Your task to perform on an android device: Add "energizer triple a" to the cart on walmart.com Image 0: 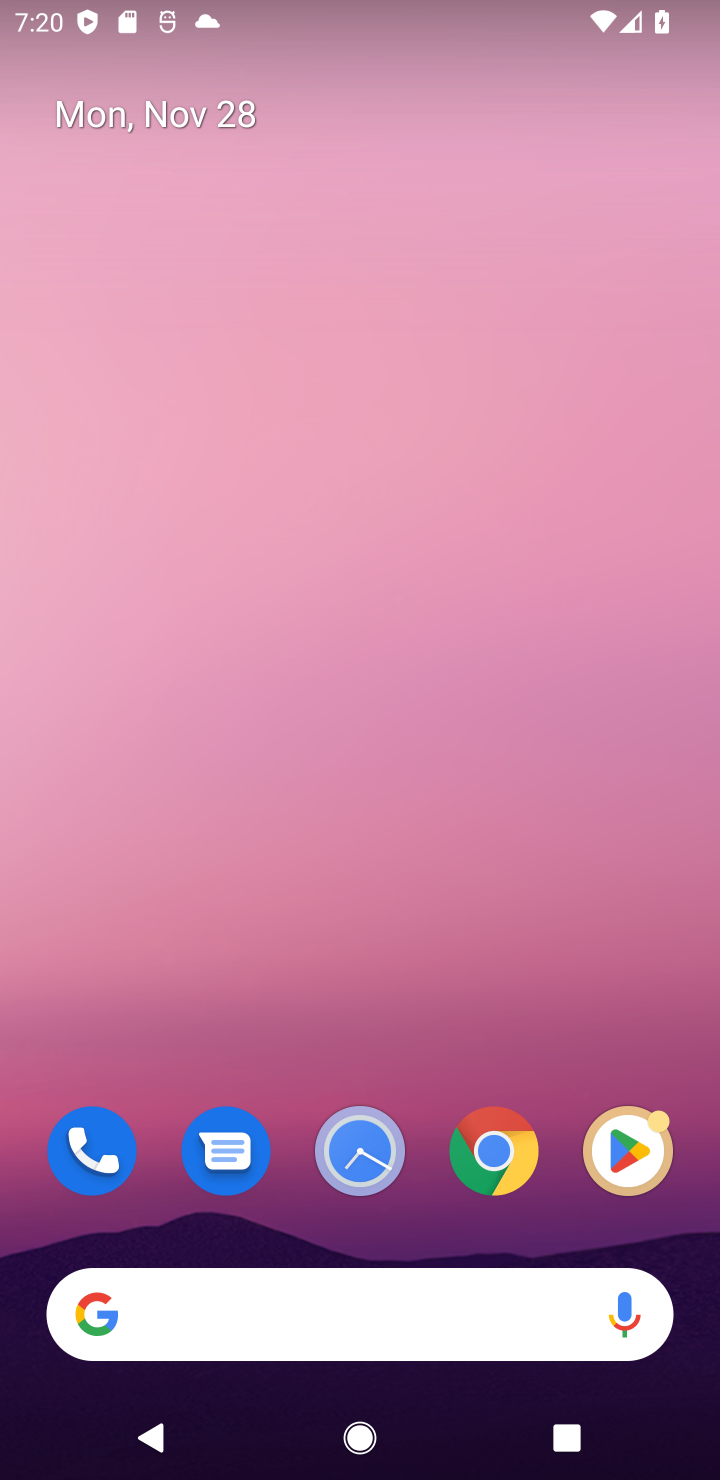
Step 0: click (203, 1346)
Your task to perform on an android device: Add "energizer triple a" to the cart on walmart.com Image 1: 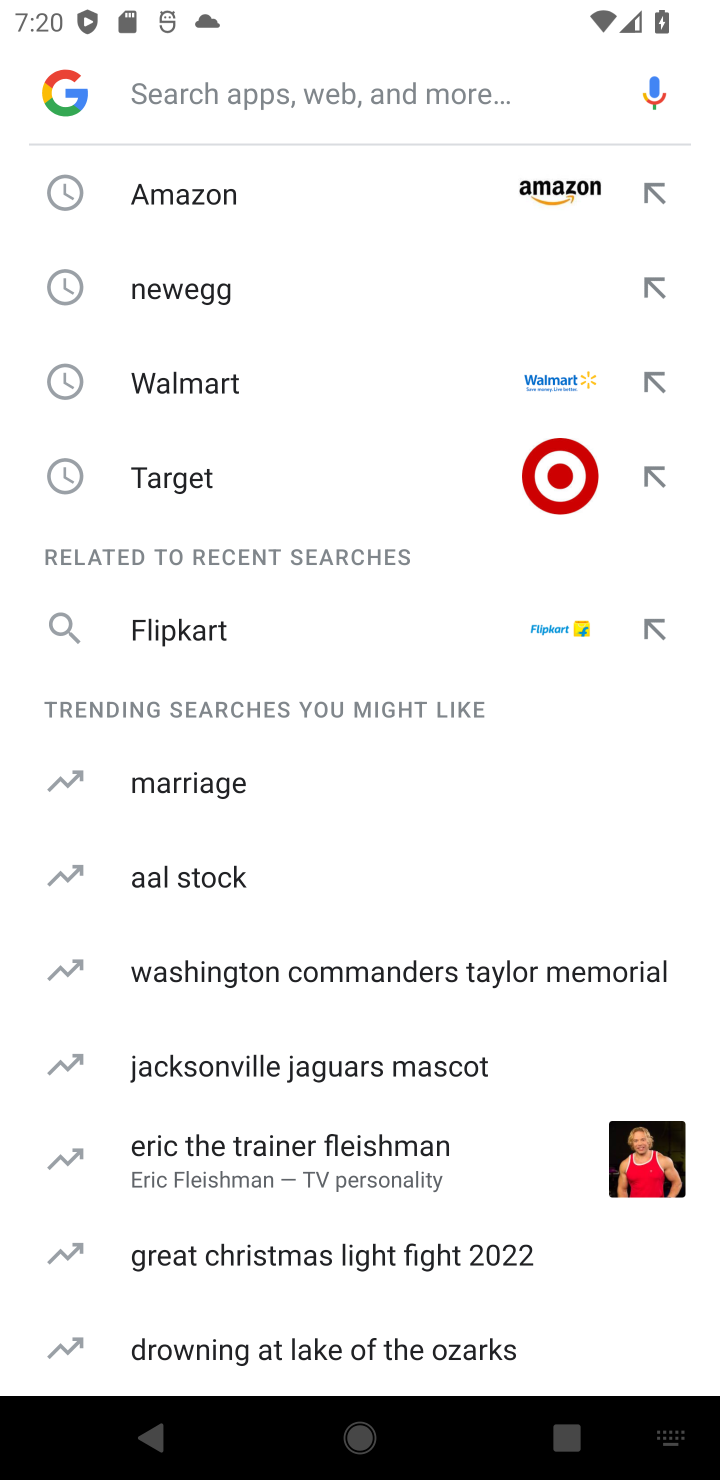
Step 1: type "walmart"
Your task to perform on an android device: Add "energizer triple a" to the cart on walmart.com Image 2: 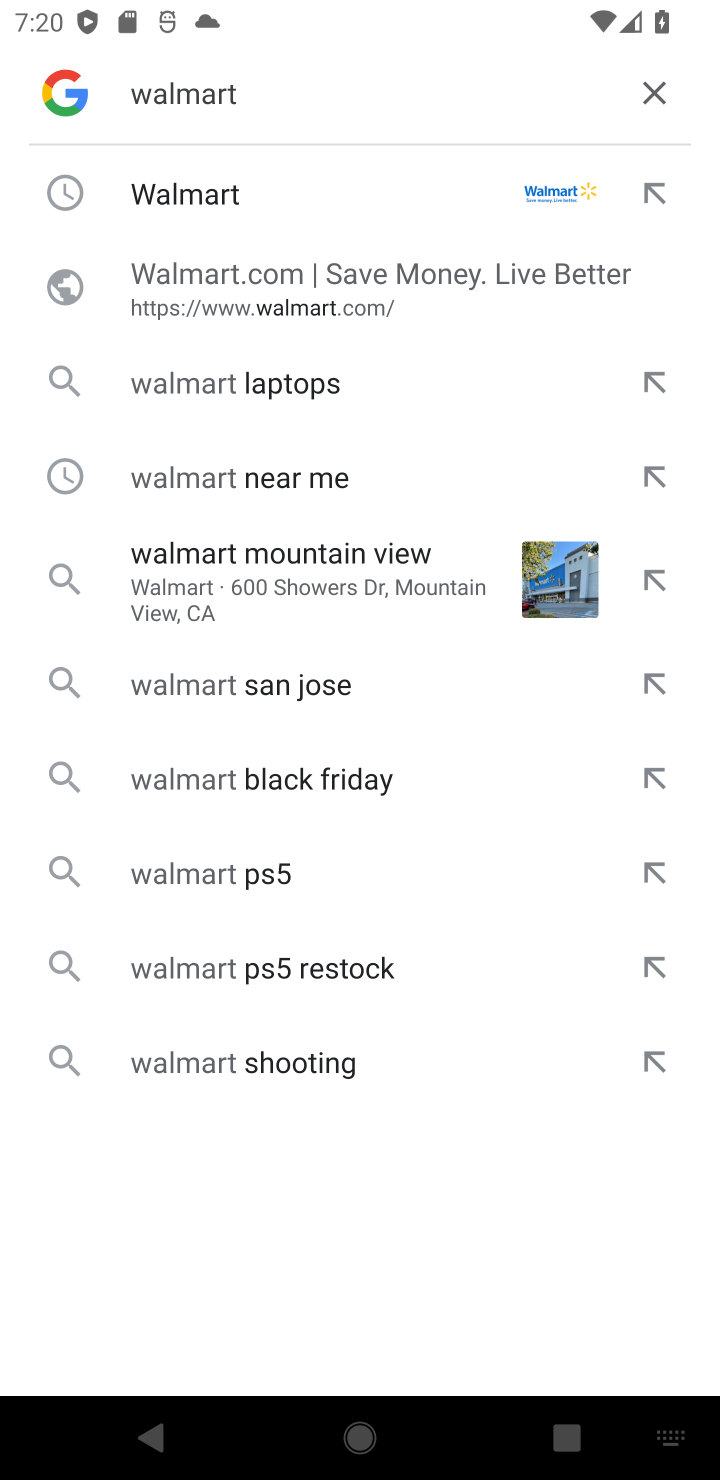
Step 2: click (203, 205)
Your task to perform on an android device: Add "energizer triple a" to the cart on walmart.com Image 3: 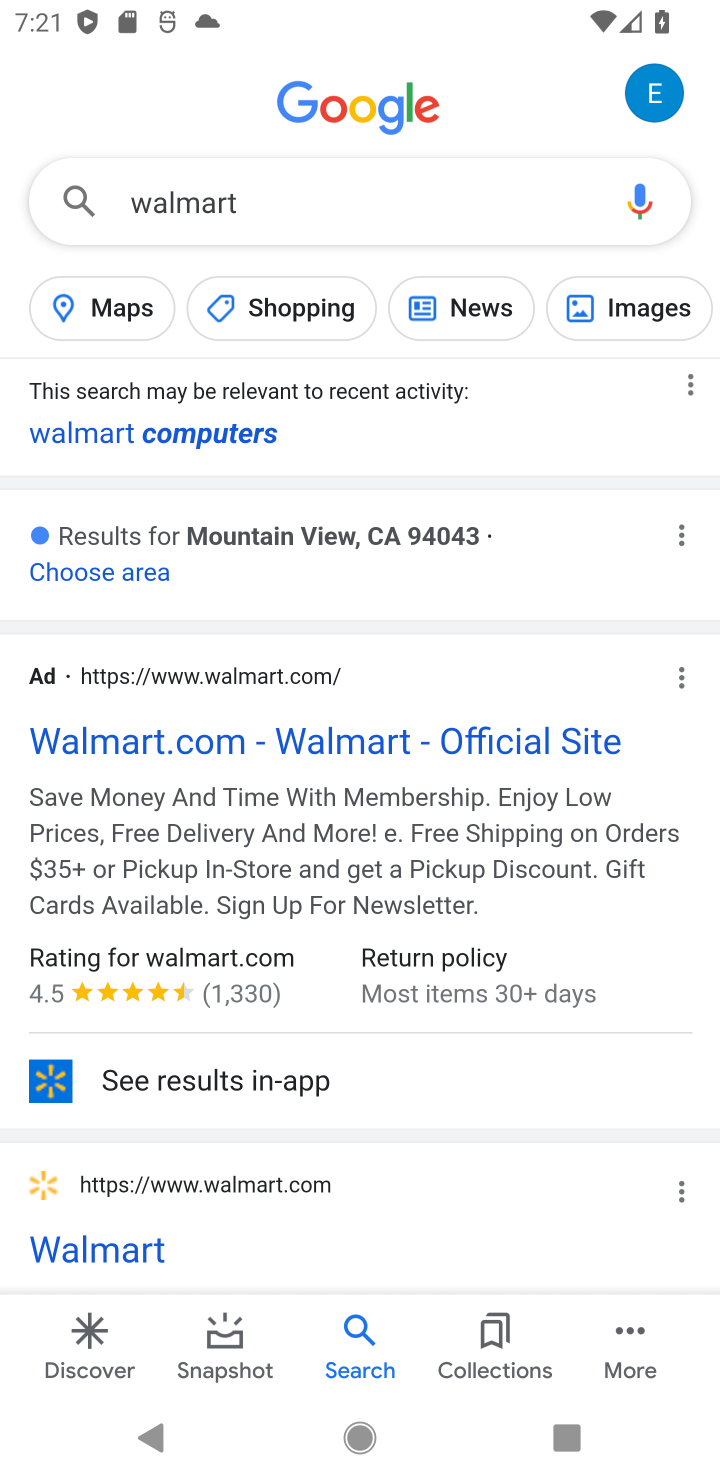
Step 3: click (104, 738)
Your task to perform on an android device: Add "energizer triple a" to the cart on walmart.com Image 4: 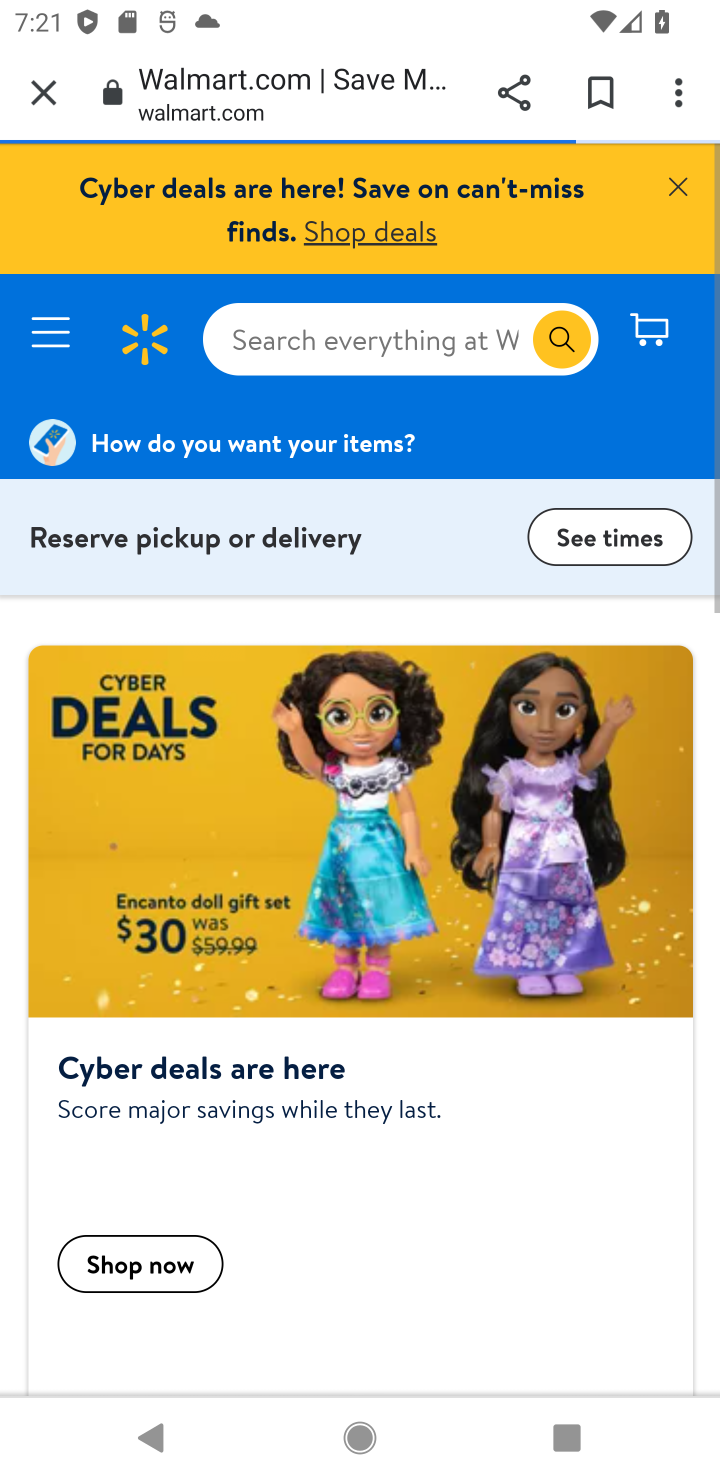
Step 4: click (678, 205)
Your task to perform on an android device: Add "energizer triple a" to the cart on walmart.com Image 5: 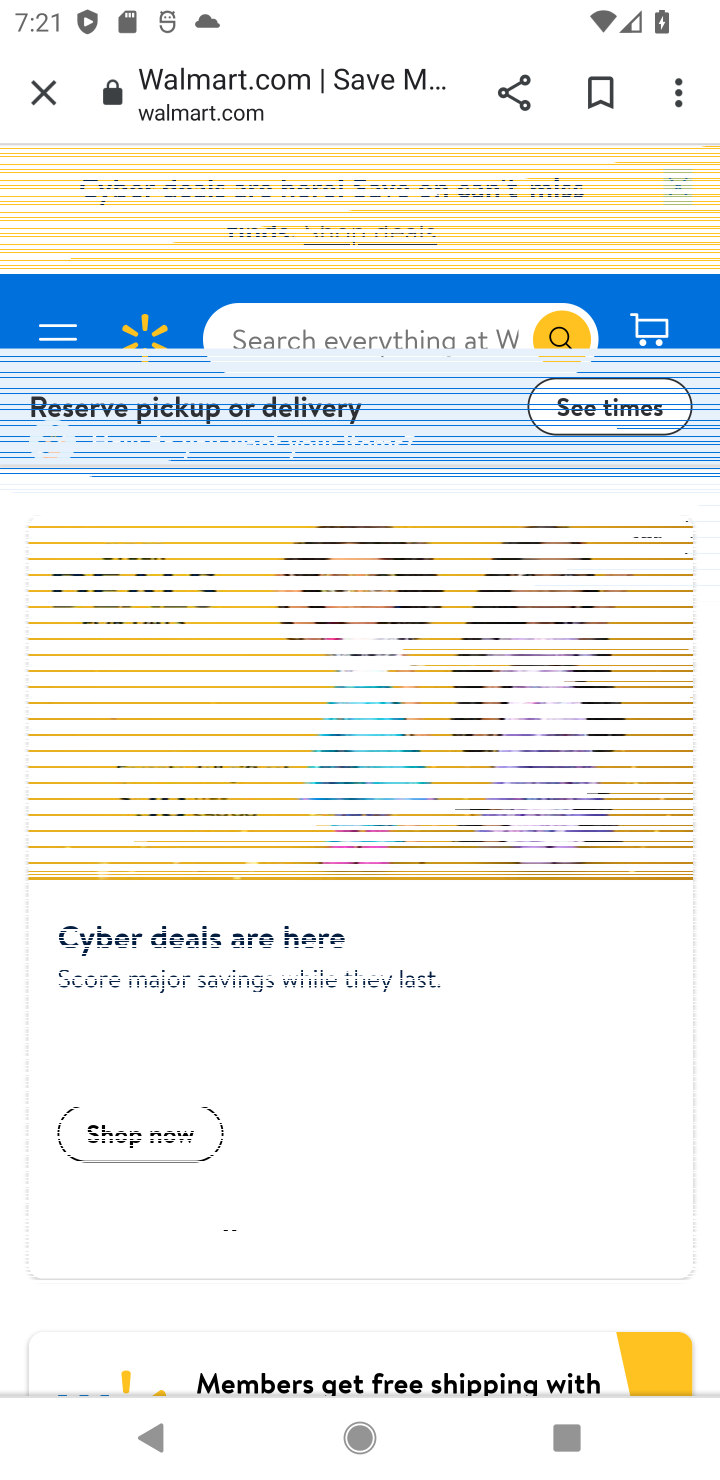
Step 5: click (375, 359)
Your task to perform on an android device: Add "energizer triple a" to the cart on walmart.com Image 6: 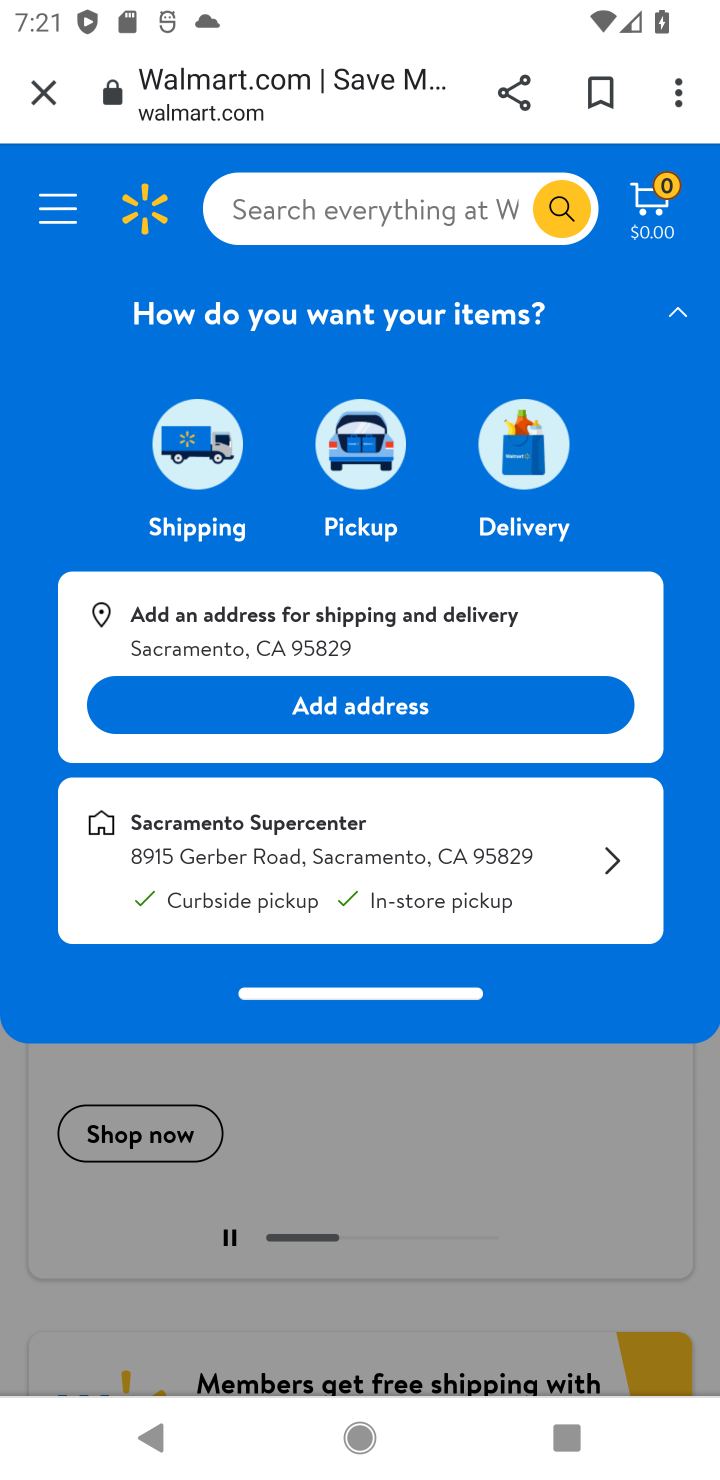
Step 6: click (360, 212)
Your task to perform on an android device: Add "energizer triple a" to the cart on walmart.com Image 7: 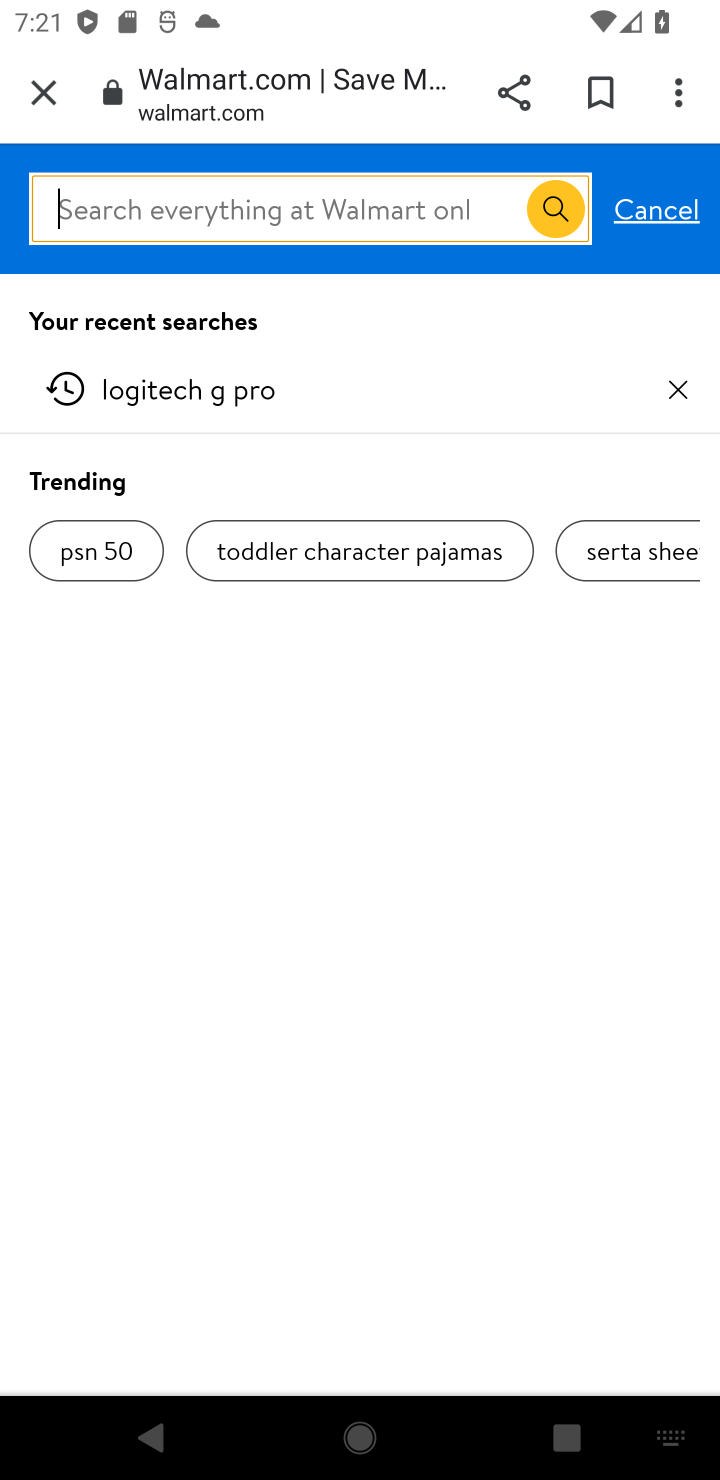
Step 7: type "energizer triple a"
Your task to perform on an android device: Add "energizer triple a" to the cart on walmart.com Image 8: 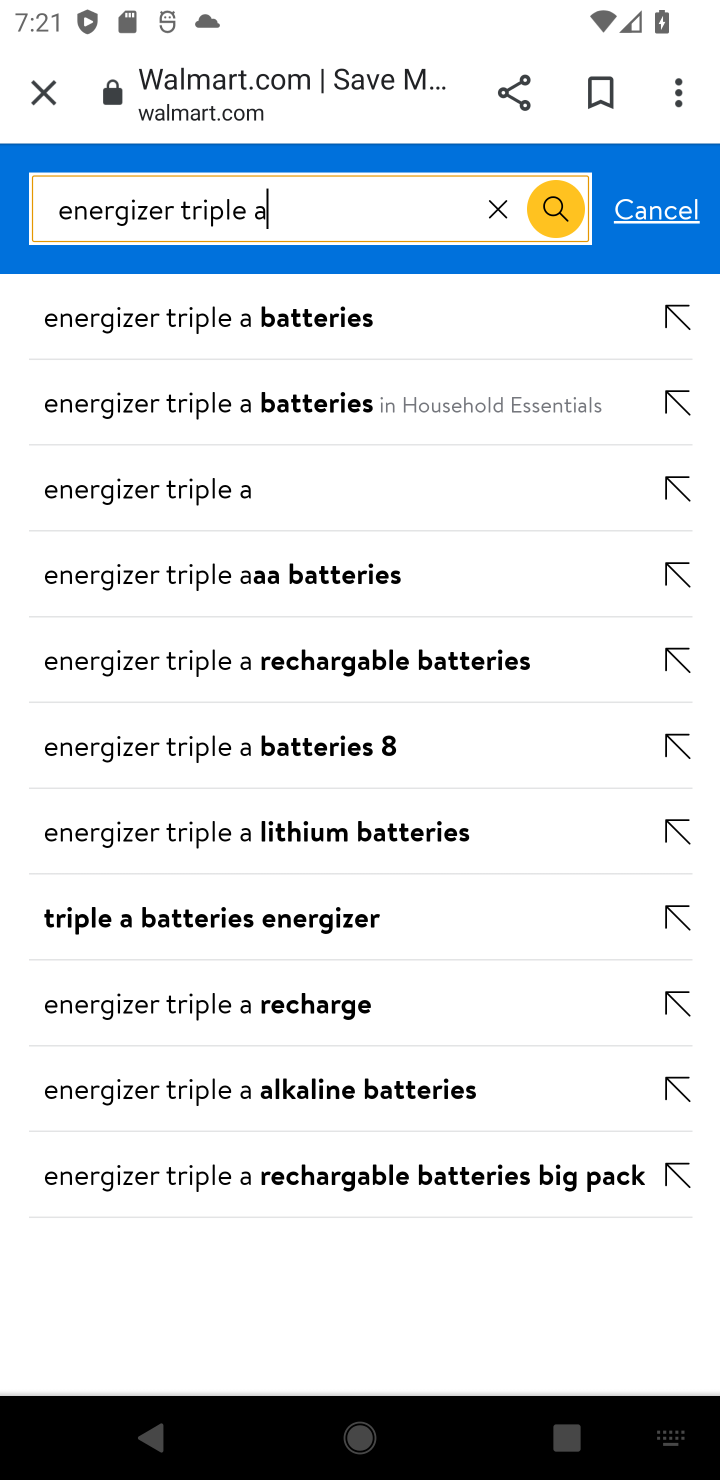
Step 8: click (283, 347)
Your task to perform on an android device: Add "energizer triple a" to the cart on walmart.com Image 9: 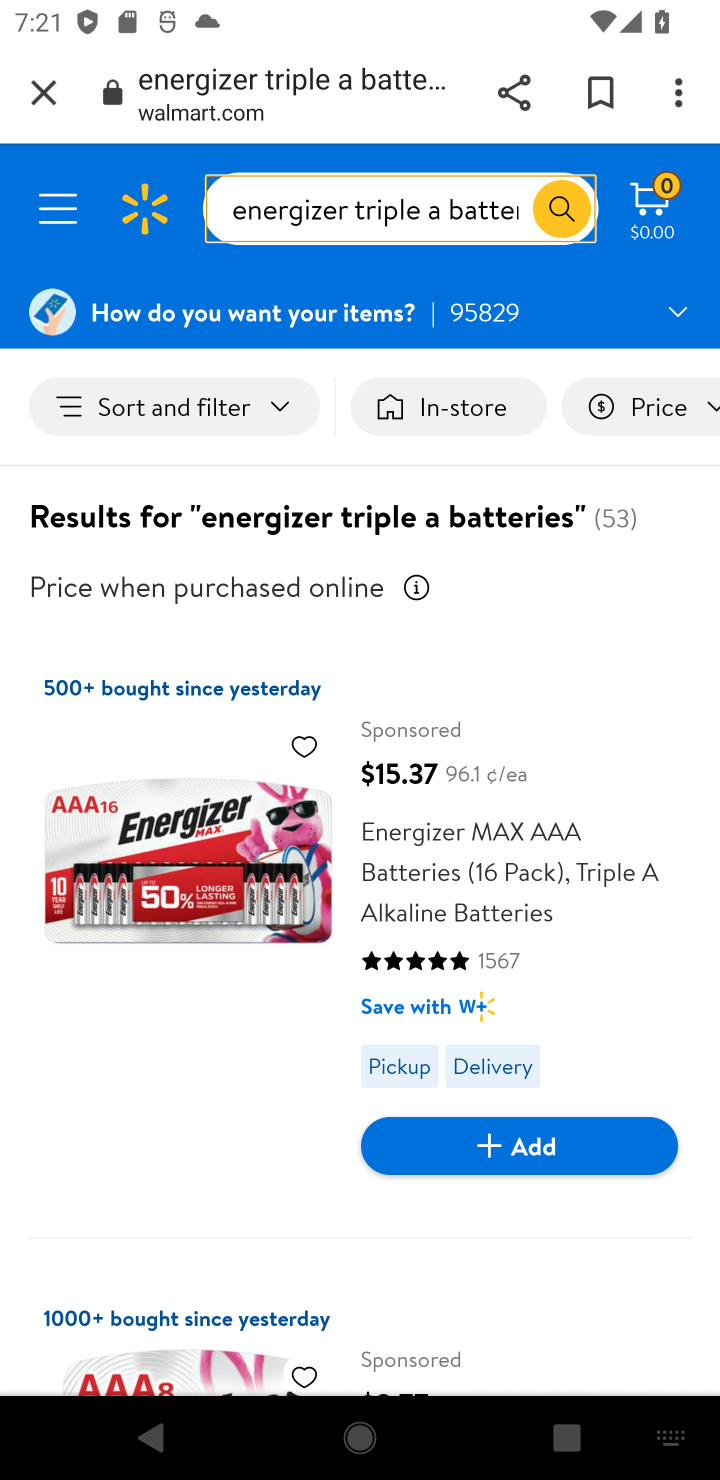
Step 9: click (502, 1163)
Your task to perform on an android device: Add "energizer triple a" to the cart on walmart.com Image 10: 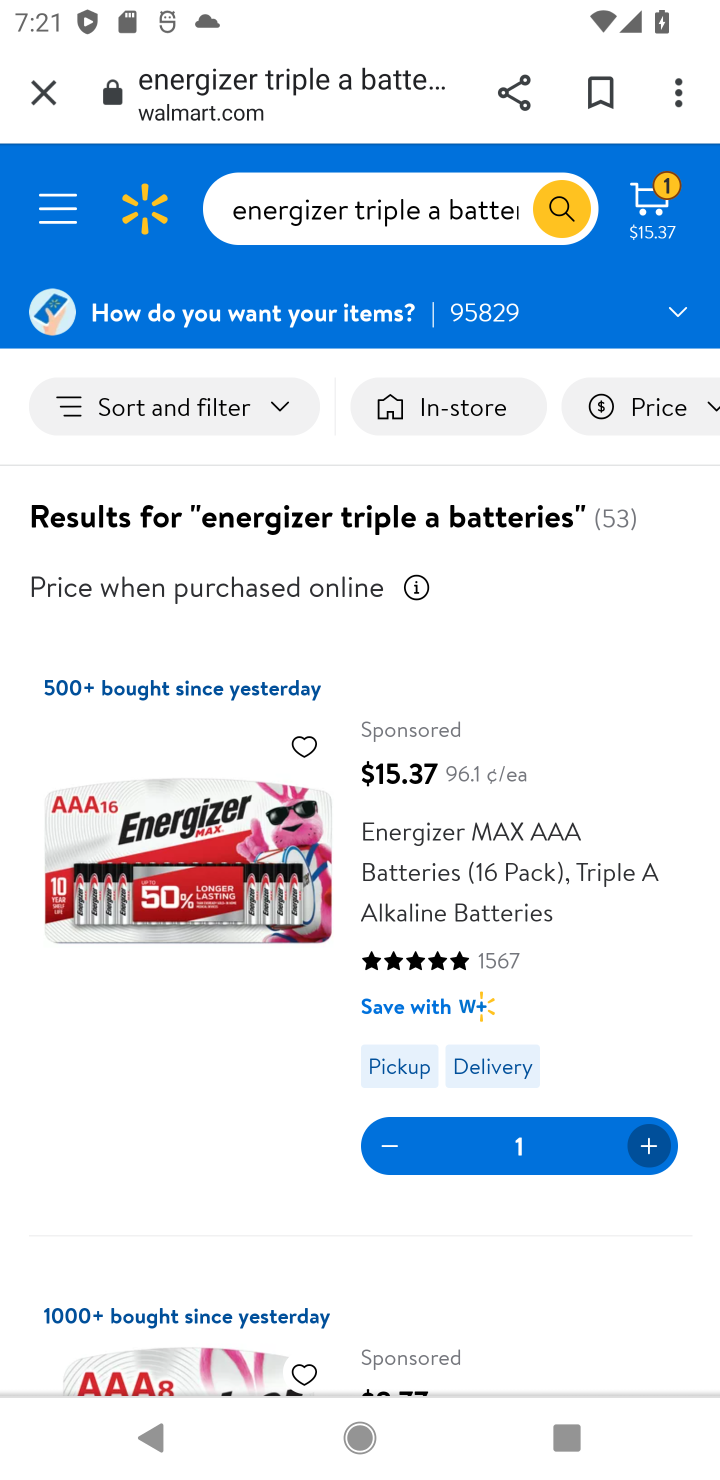
Step 10: task complete